Your task to perform on an android device: When is my next meeting? Image 0: 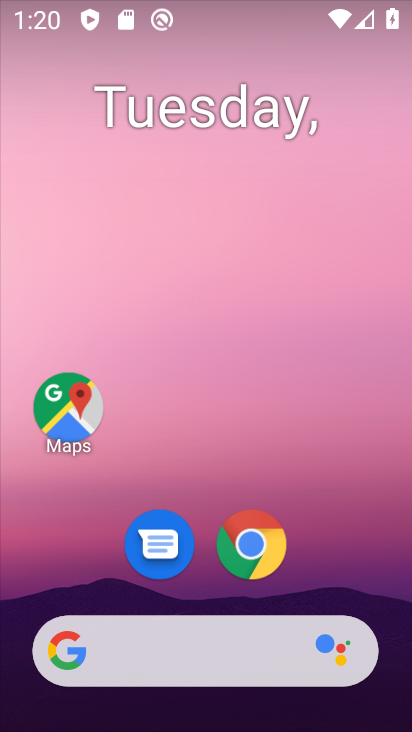
Step 0: drag from (383, 548) to (384, 288)
Your task to perform on an android device: When is my next meeting? Image 1: 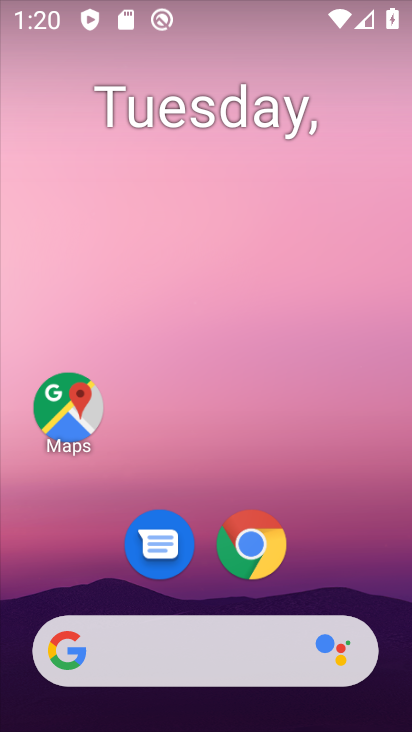
Step 1: drag from (361, 518) to (369, 161)
Your task to perform on an android device: When is my next meeting? Image 2: 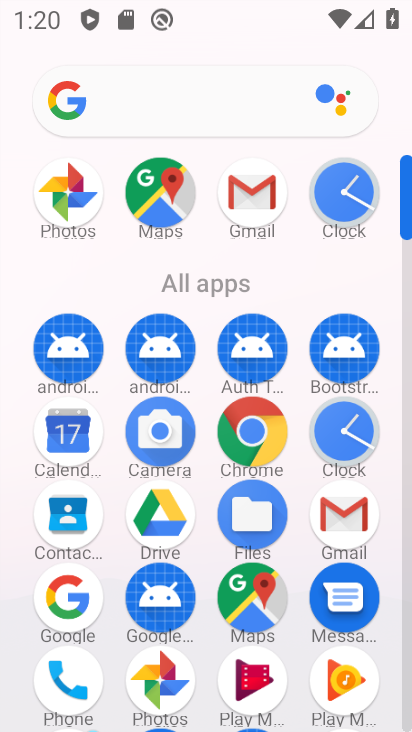
Step 2: click (80, 444)
Your task to perform on an android device: When is my next meeting? Image 3: 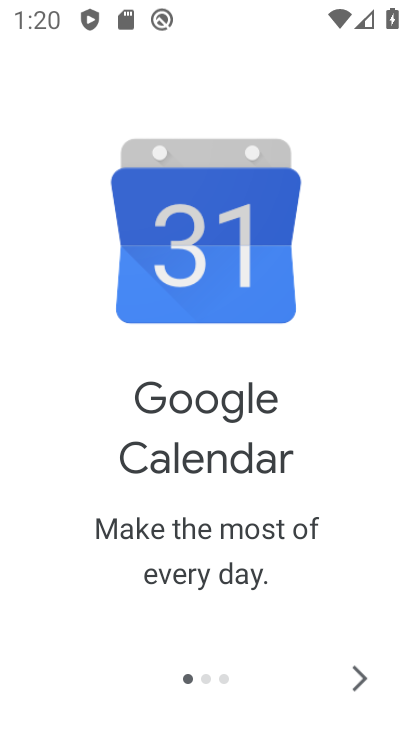
Step 3: click (367, 681)
Your task to perform on an android device: When is my next meeting? Image 4: 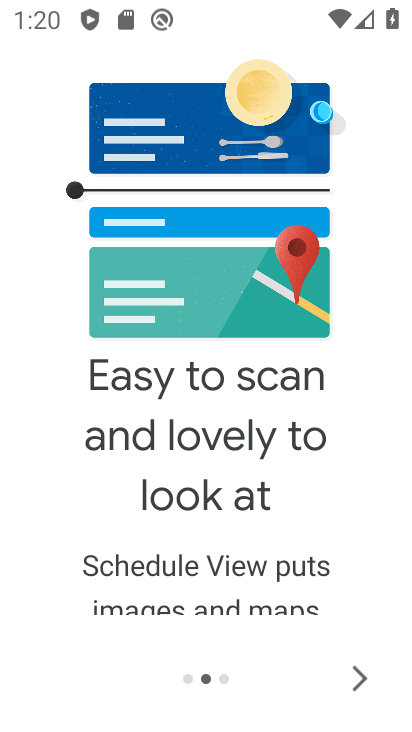
Step 4: click (366, 681)
Your task to perform on an android device: When is my next meeting? Image 5: 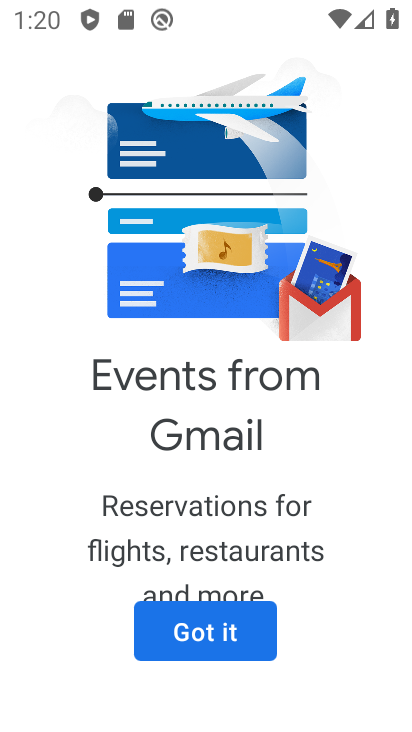
Step 5: click (227, 651)
Your task to perform on an android device: When is my next meeting? Image 6: 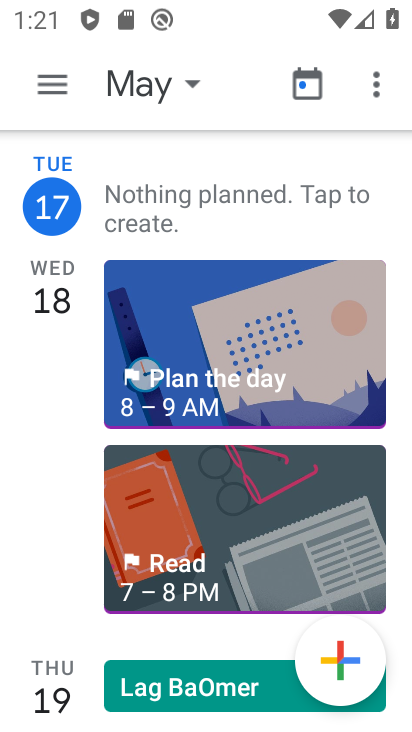
Step 6: click (191, 83)
Your task to perform on an android device: When is my next meeting? Image 7: 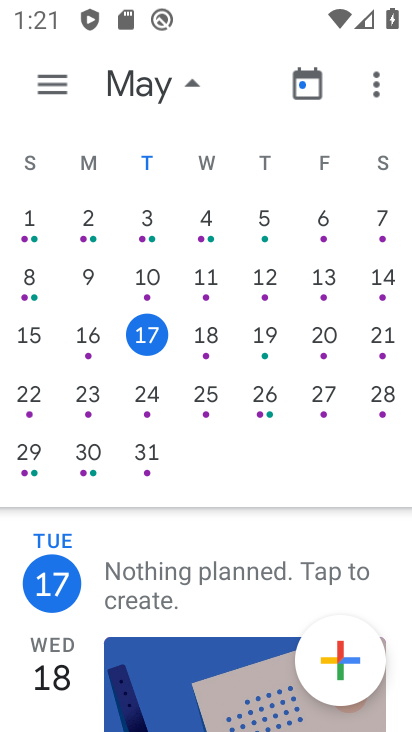
Step 7: drag from (242, 638) to (234, 377)
Your task to perform on an android device: When is my next meeting? Image 8: 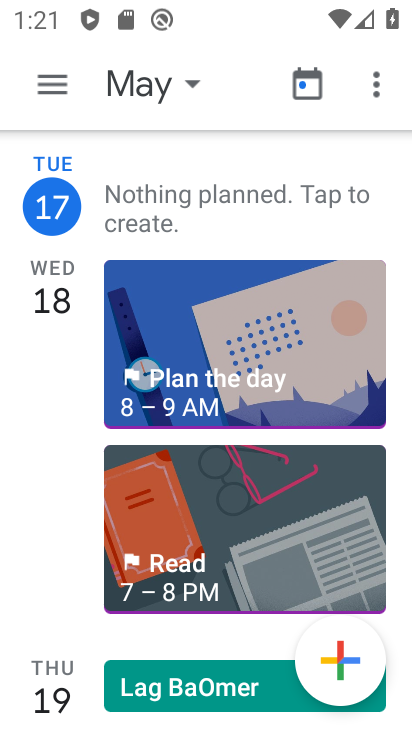
Step 8: drag from (212, 616) to (221, 515)
Your task to perform on an android device: When is my next meeting? Image 9: 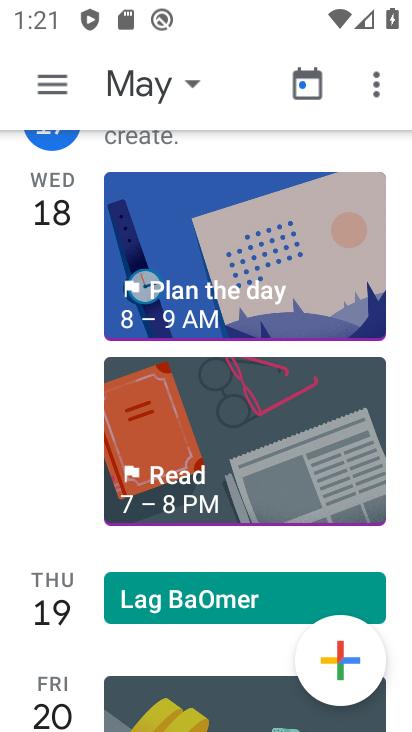
Step 9: click (261, 270)
Your task to perform on an android device: When is my next meeting? Image 10: 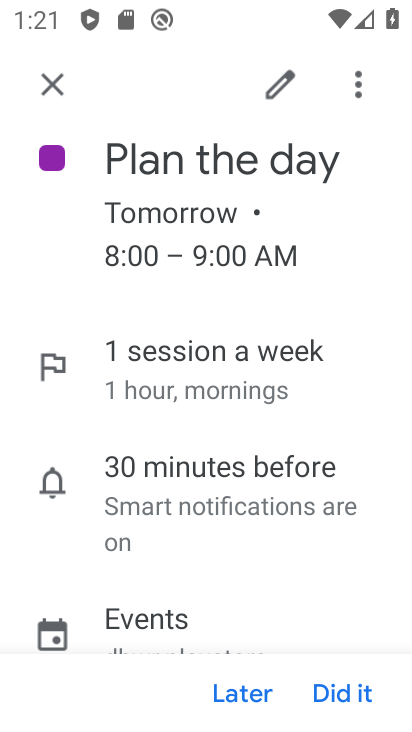
Step 10: task complete